Your task to perform on an android device: turn off location Image 0: 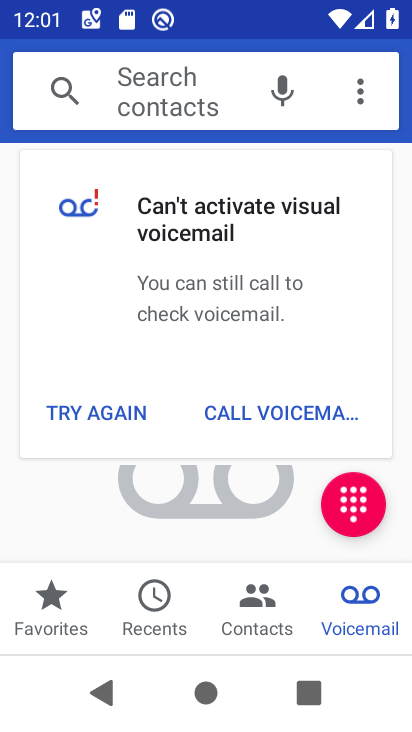
Step 0: press home button
Your task to perform on an android device: turn off location Image 1: 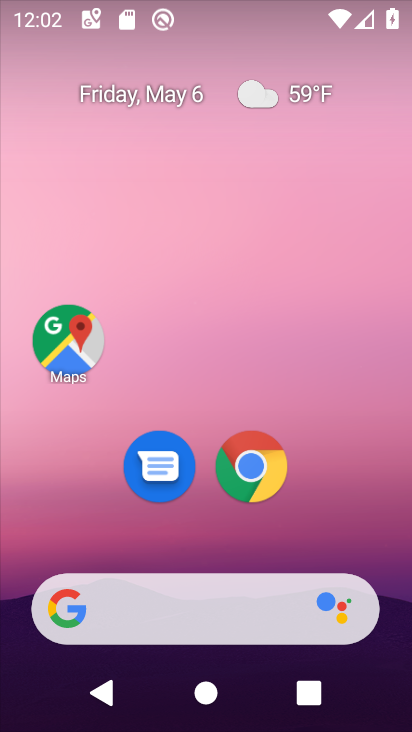
Step 1: drag from (392, 530) to (293, 84)
Your task to perform on an android device: turn off location Image 2: 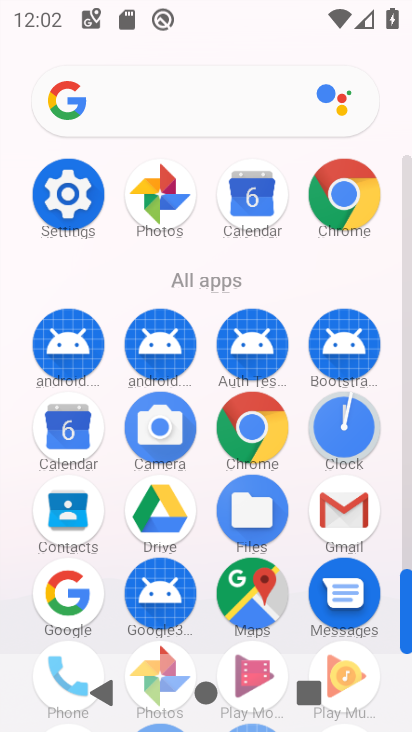
Step 2: click (79, 201)
Your task to perform on an android device: turn off location Image 3: 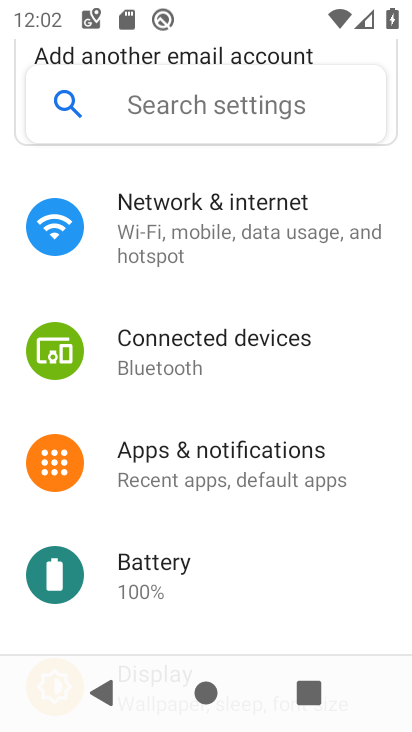
Step 3: drag from (238, 600) to (242, 210)
Your task to perform on an android device: turn off location Image 4: 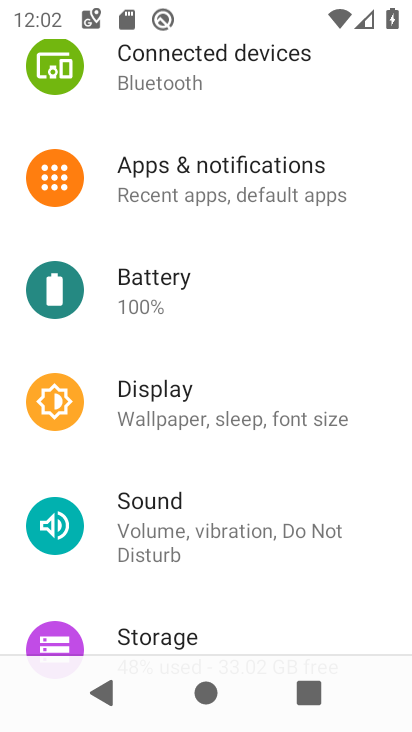
Step 4: drag from (308, 571) to (319, 66)
Your task to perform on an android device: turn off location Image 5: 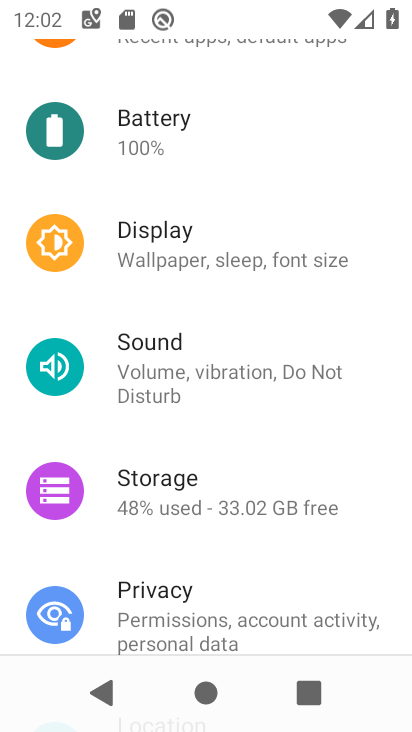
Step 5: drag from (255, 558) to (238, 210)
Your task to perform on an android device: turn off location Image 6: 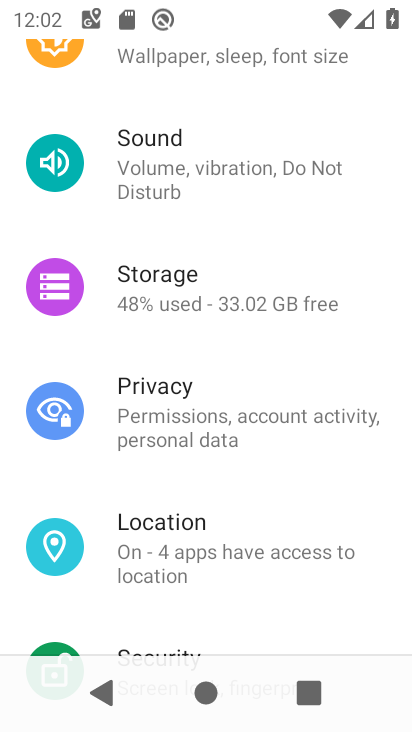
Step 6: click (223, 532)
Your task to perform on an android device: turn off location Image 7: 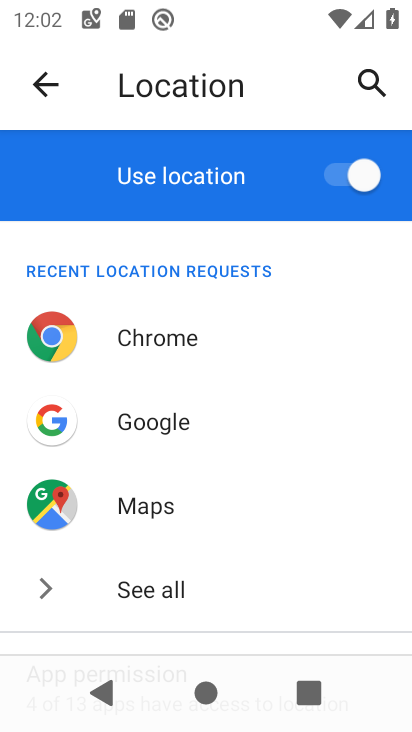
Step 7: click (345, 175)
Your task to perform on an android device: turn off location Image 8: 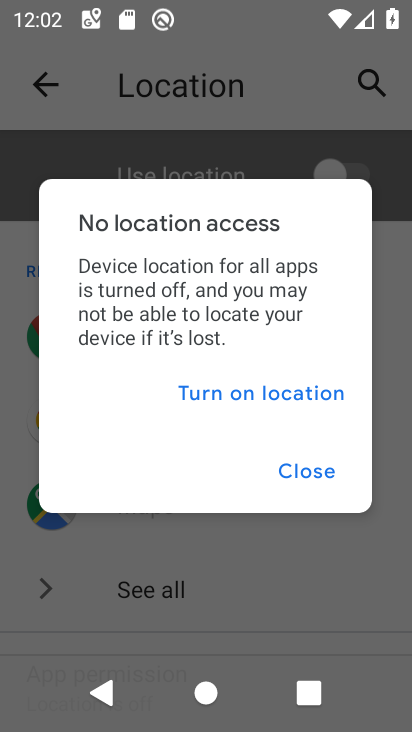
Step 8: click (324, 474)
Your task to perform on an android device: turn off location Image 9: 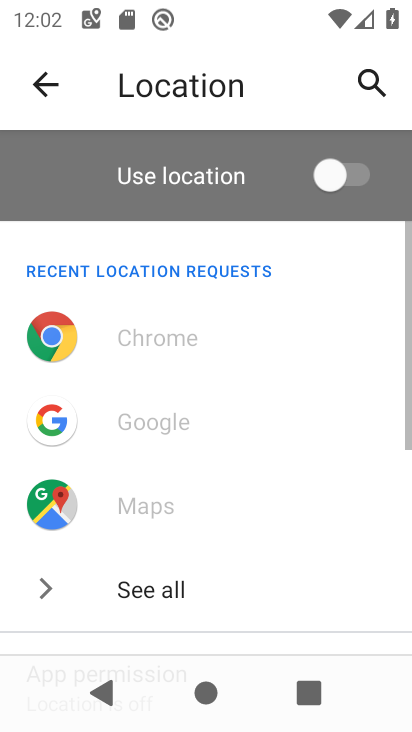
Step 9: task complete